Your task to perform on an android device: Go to accessibility settings Image 0: 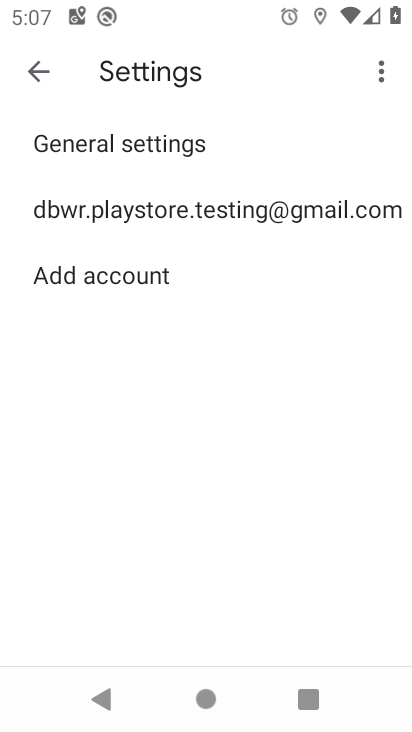
Step 0: press home button
Your task to perform on an android device: Go to accessibility settings Image 1: 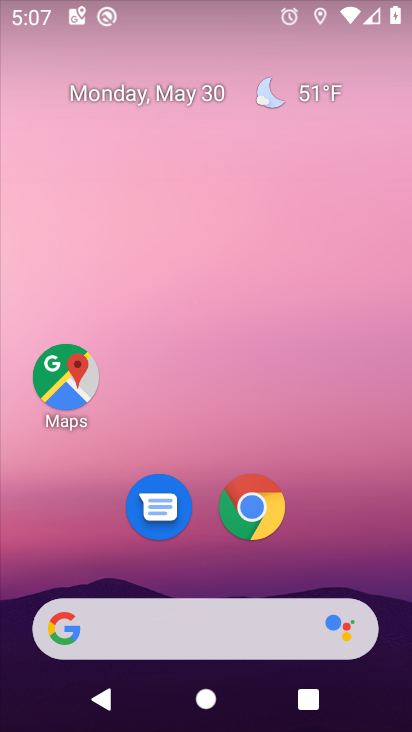
Step 1: drag from (358, 492) to (387, 121)
Your task to perform on an android device: Go to accessibility settings Image 2: 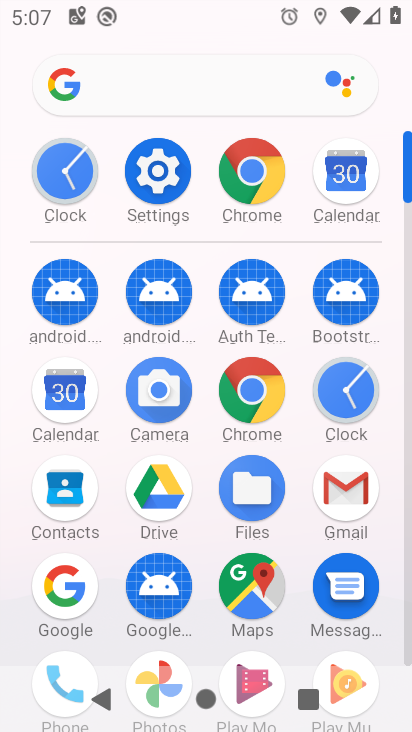
Step 2: click (118, 146)
Your task to perform on an android device: Go to accessibility settings Image 3: 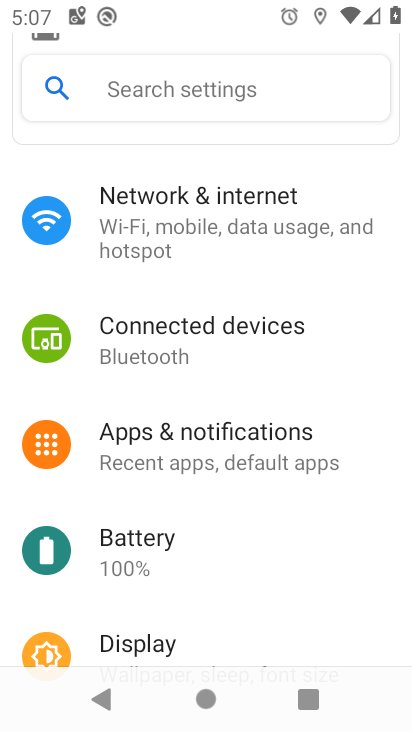
Step 3: drag from (245, 565) to (278, 251)
Your task to perform on an android device: Go to accessibility settings Image 4: 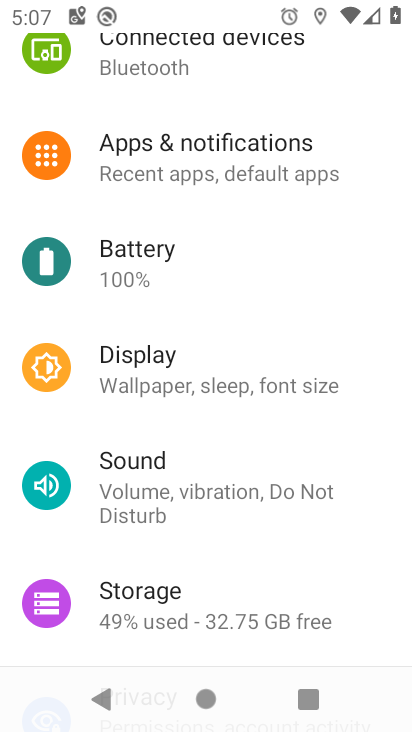
Step 4: drag from (233, 577) to (261, 217)
Your task to perform on an android device: Go to accessibility settings Image 5: 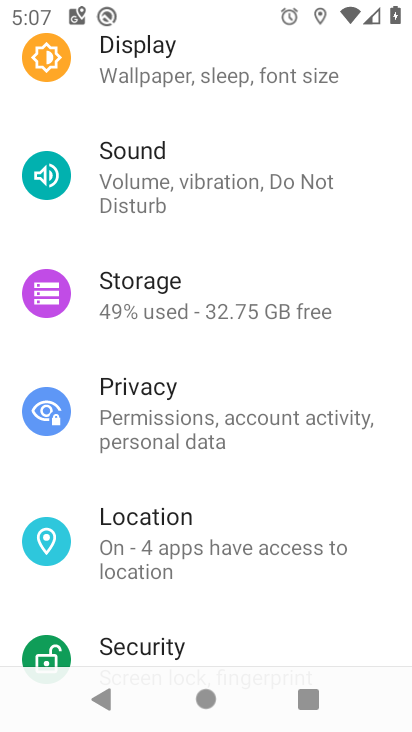
Step 5: drag from (285, 528) to (283, 317)
Your task to perform on an android device: Go to accessibility settings Image 6: 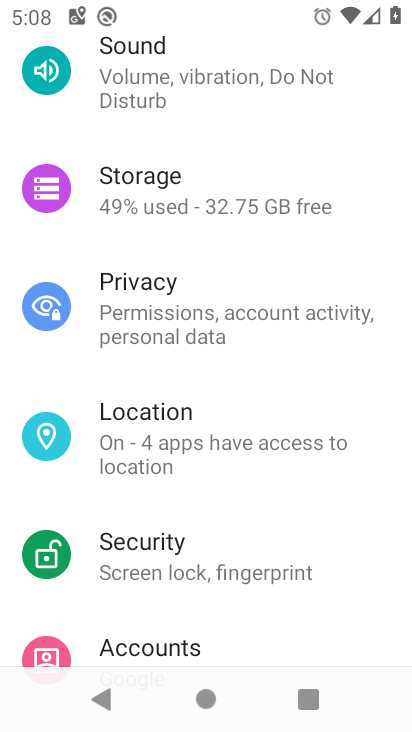
Step 6: drag from (243, 503) to (252, 259)
Your task to perform on an android device: Go to accessibility settings Image 7: 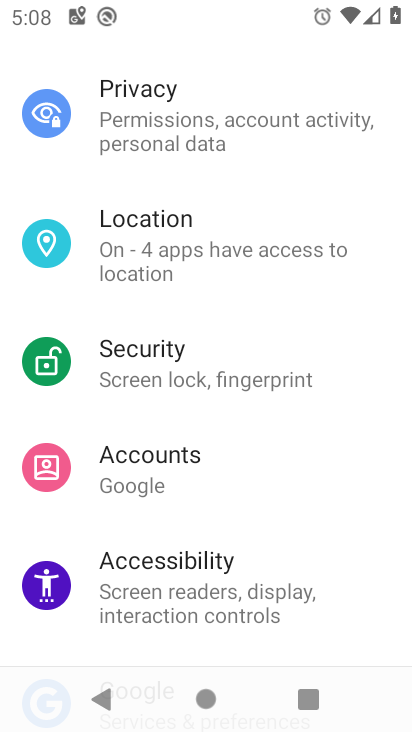
Step 7: click (194, 538)
Your task to perform on an android device: Go to accessibility settings Image 8: 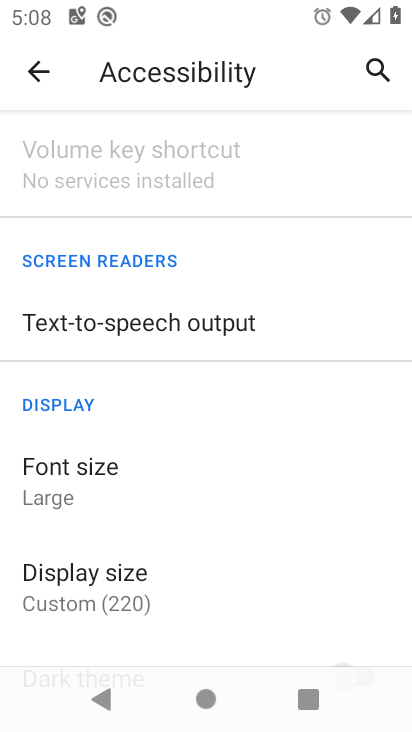
Step 8: task complete